Your task to perform on an android device: Go to battery settings Image 0: 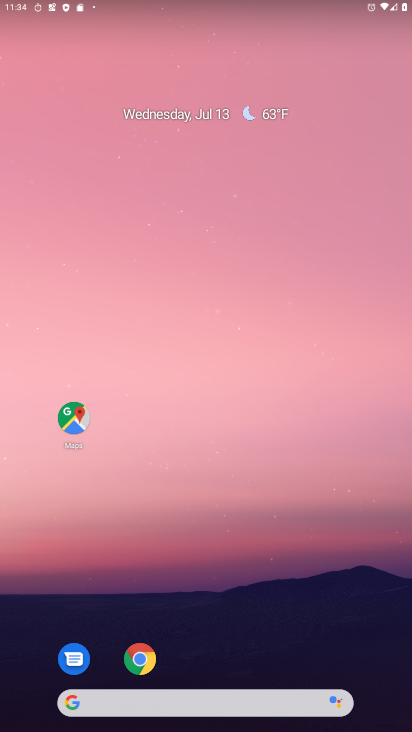
Step 0: drag from (240, 563) to (217, 95)
Your task to perform on an android device: Go to battery settings Image 1: 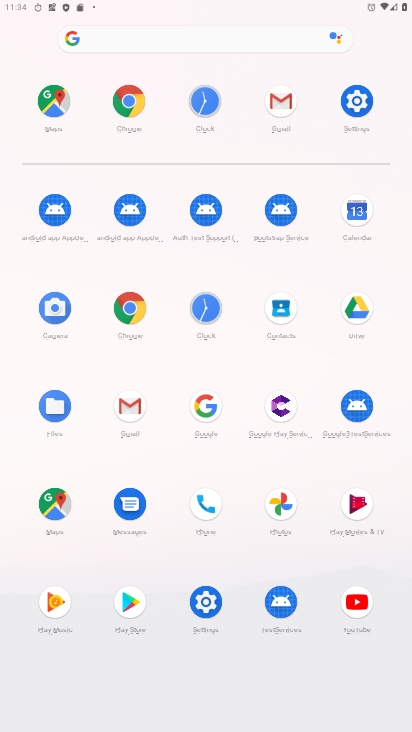
Step 1: click (363, 95)
Your task to perform on an android device: Go to battery settings Image 2: 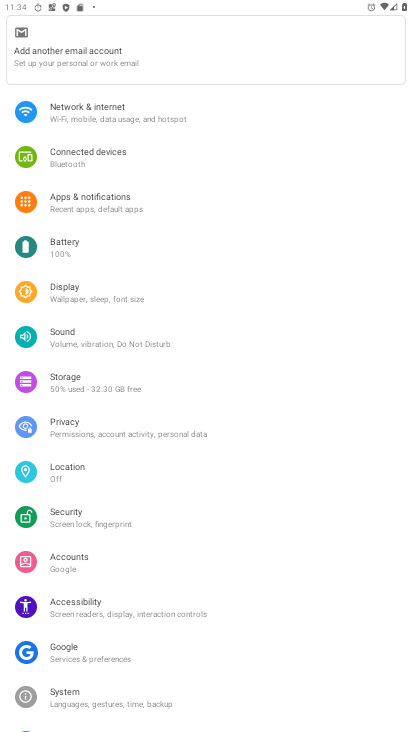
Step 2: click (66, 240)
Your task to perform on an android device: Go to battery settings Image 3: 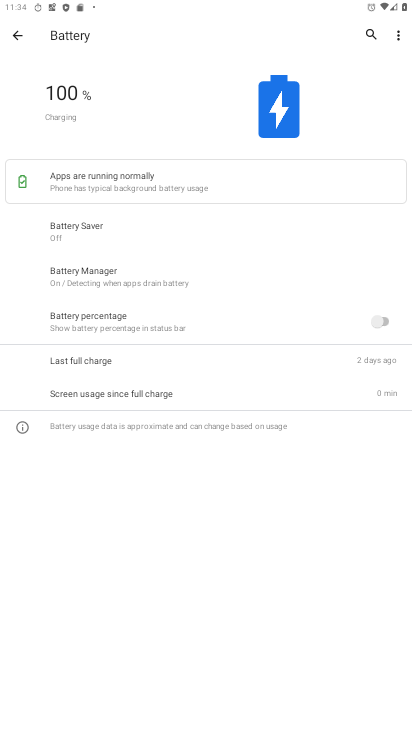
Step 3: task complete